Your task to perform on an android device: Open Android settings Image 0: 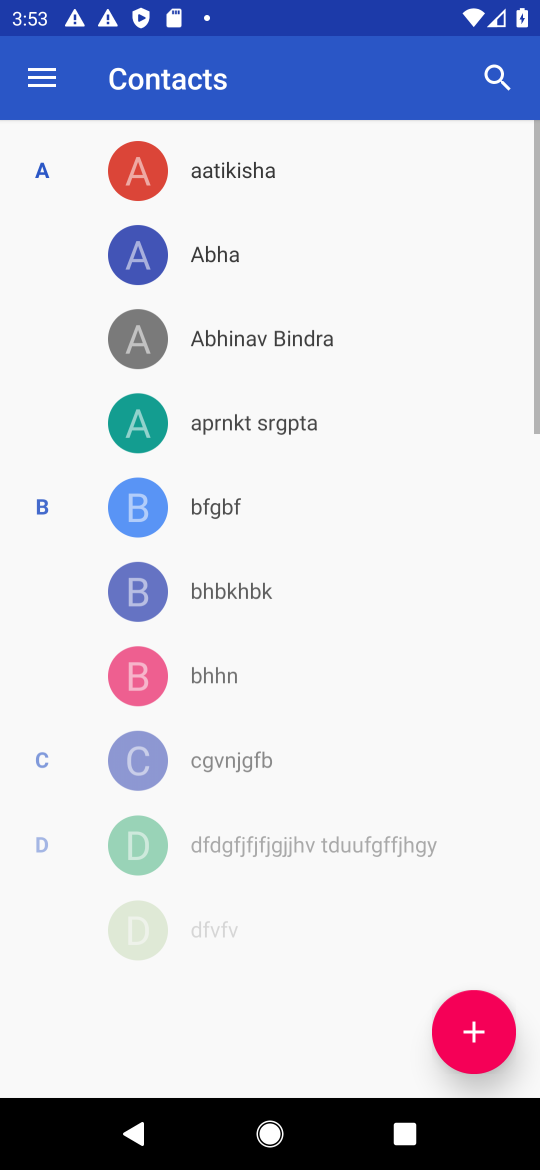
Step 0: press home button
Your task to perform on an android device: Open Android settings Image 1: 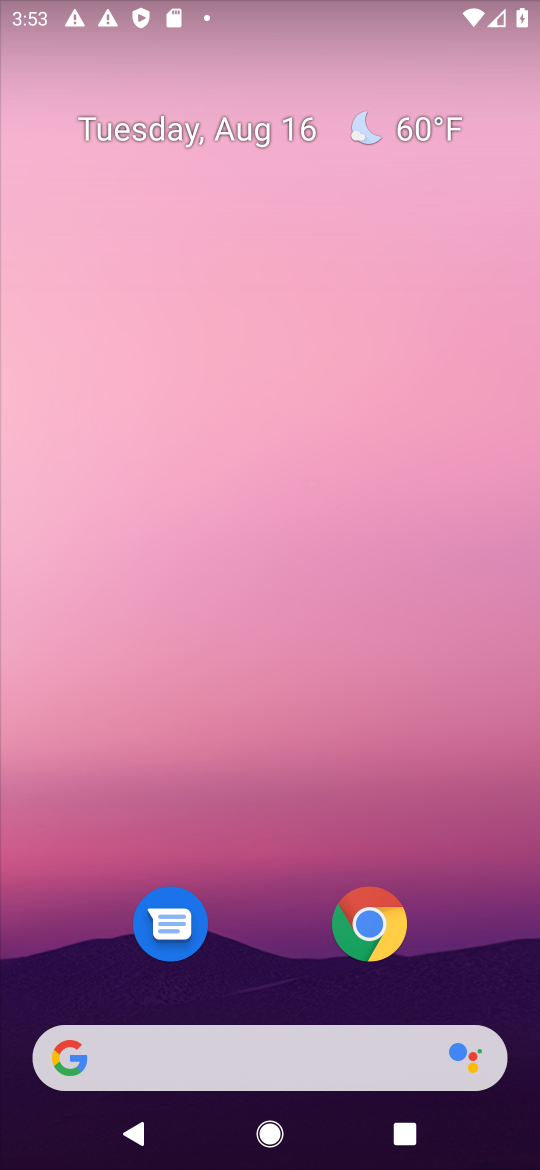
Step 1: drag from (273, 905) to (340, 98)
Your task to perform on an android device: Open Android settings Image 2: 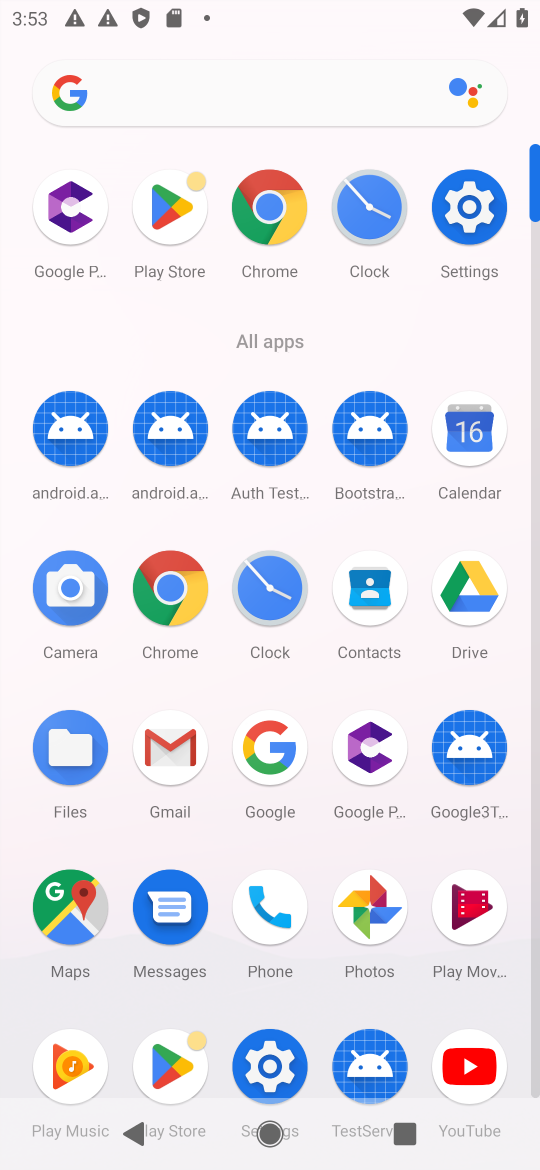
Step 2: click (455, 216)
Your task to perform on an android device: Open Android settings Image 3: 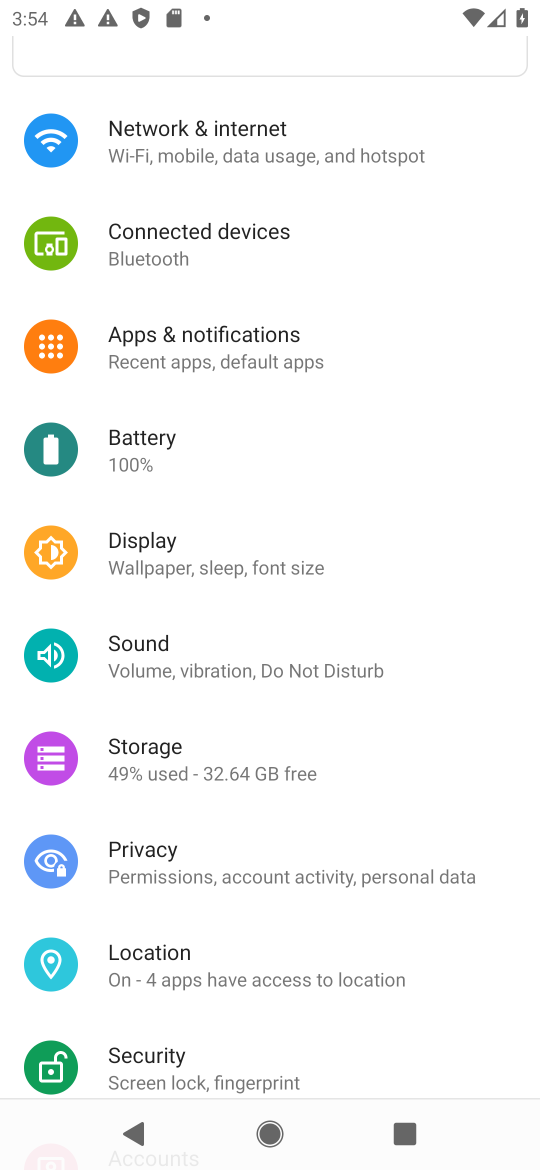
Step 3: task complete